Your task to perform on an android device: Is it going to rain this weekend? Image 0: 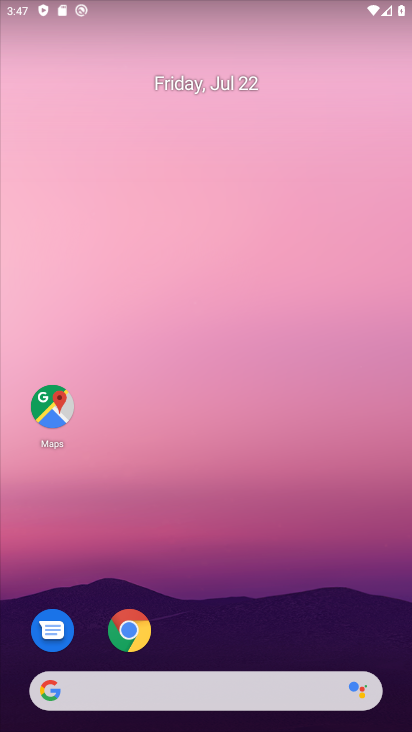
Step 0: drag from (202, 626) to (205, 138)
Your task to perform on an android device: Is it going to rain this weekend? Image 1: 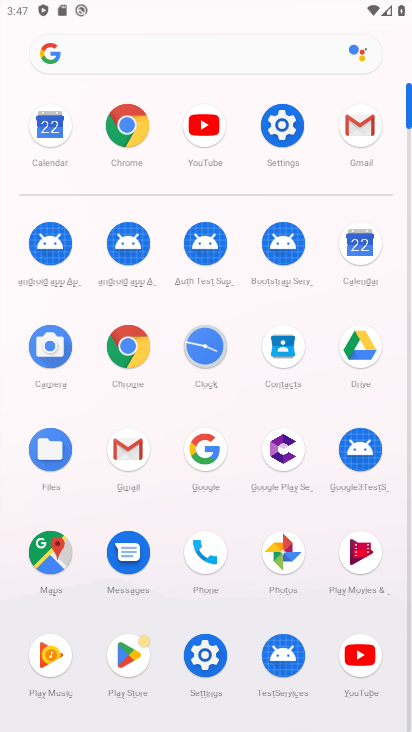
Step 1: click (220, 56)
Your task to perform on an android device: Is it going to rain this weekend? Image 2: 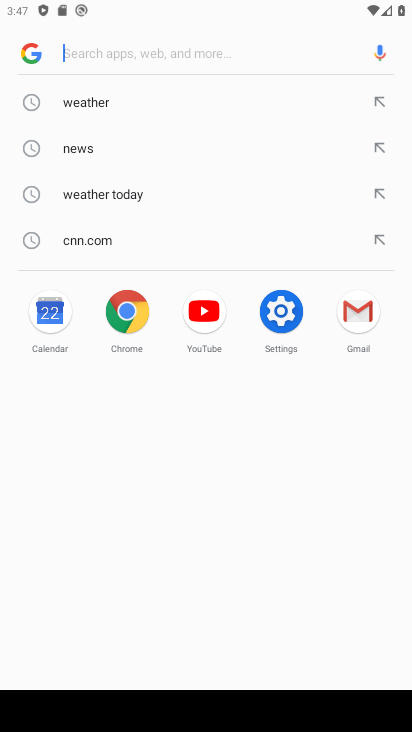
Step 2: type "weekend"
Your task to perform on an android device: Is it going to rain this weekend? Image 3: 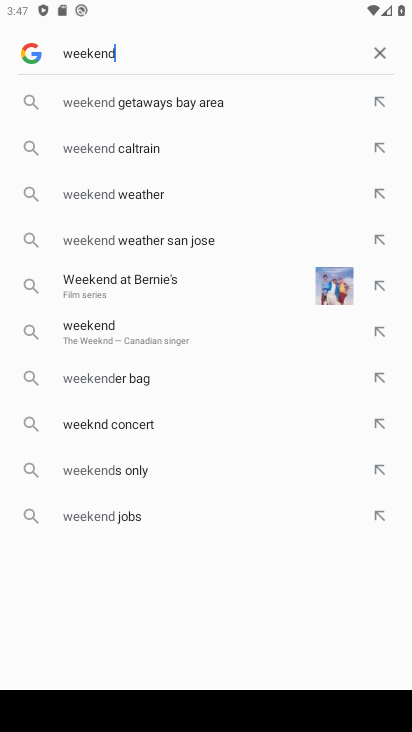
Step 3: type " waether"
Your task to perform on an android device: Is it going to rain this weekend? Image 4: 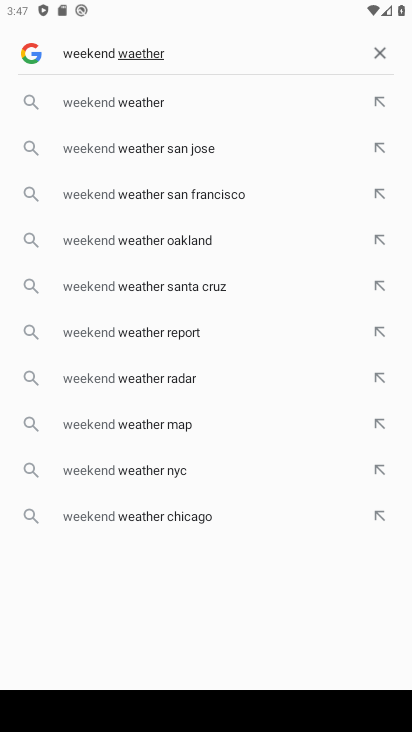
Step 4: click (116, 109)
Your task to perform on an android device: Is it going to rain this weekend? Image 5: 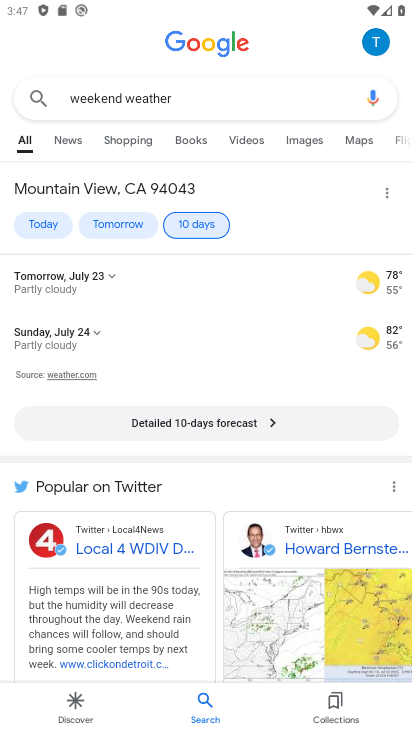
Step 5: task complete